Your task to perform on an android device: Go to Wikipedia Image 0: 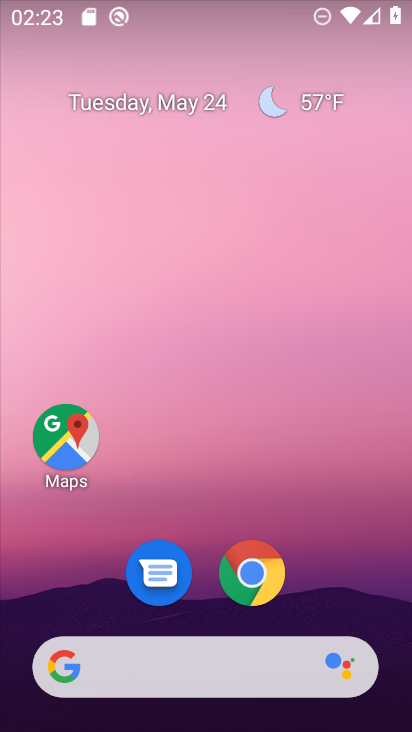
Step 0: drag from (329, 567) to (345, 232)
Your task to perform on an android device: Go to Wikipedia Image 1: 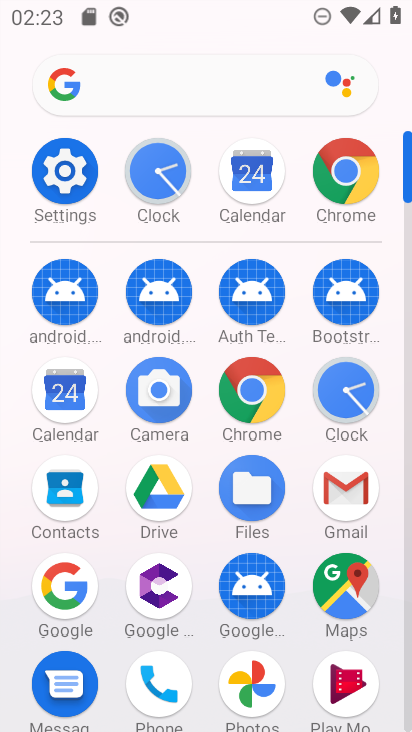
Step 1: click (238, 399)
Your task to perform on an android device: Go to Wikipedia Image 2: 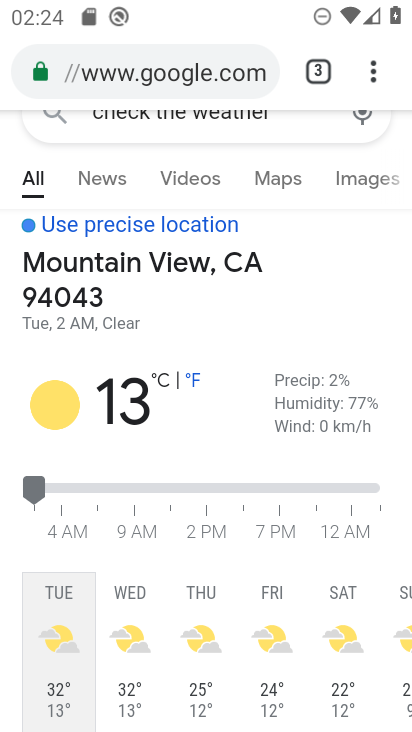
Step 2: click (315, 55)
Your task to perform on an android device: Go to Wikipedia Image 3: 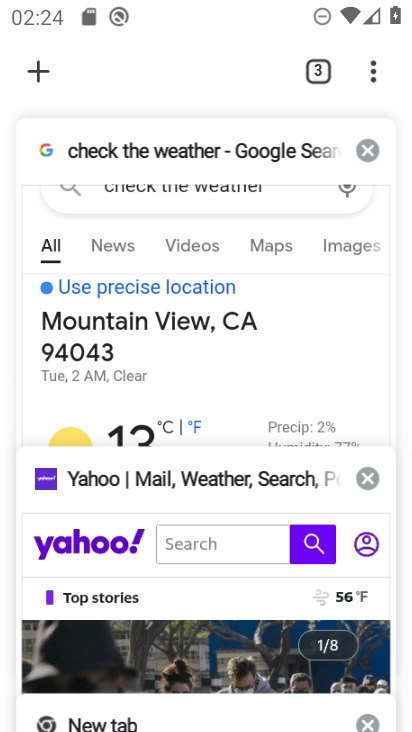
Step 3: click (36, 63)
Your task to perform on an android device: Go to Wikipedia Image 4: 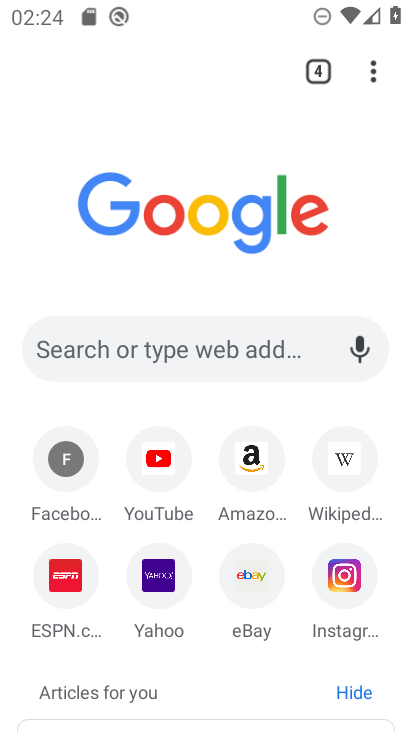
Step 4: click (314, 482)
Your task to perform on an android device: Go to Wikipedia Image 5: 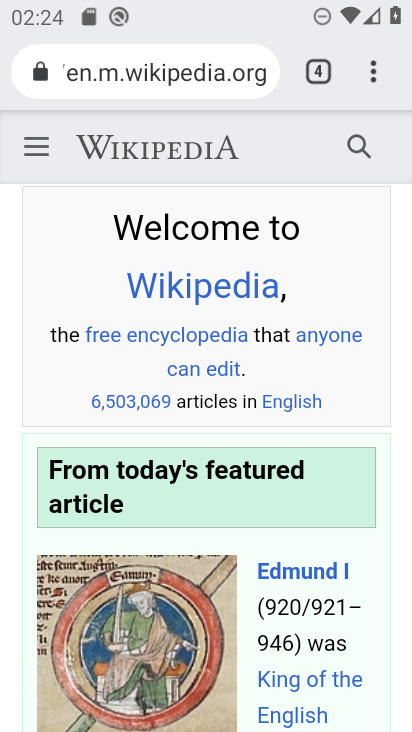
Step 5: task complete